Your task to perform on an android device: empty trash in the gmail app Image 0: 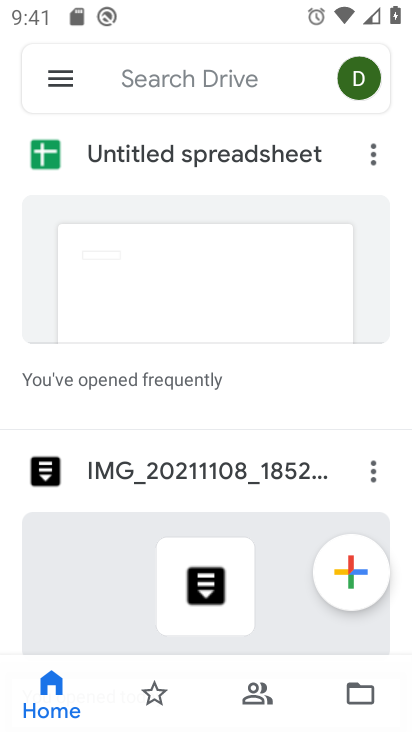
Step 0: press home button
Your task to perform on an android device: empty trash in the gmail app Image 1: 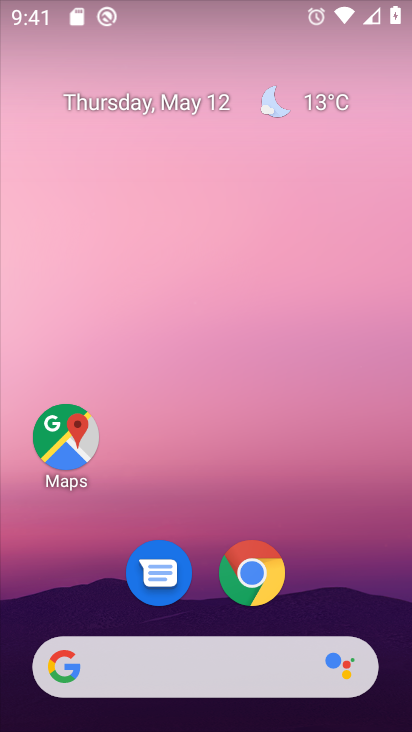
Step 1: drag from (362, 485) to (338, 329)
Your task to perform on an android device: empty trash in the gmail app Image 2: 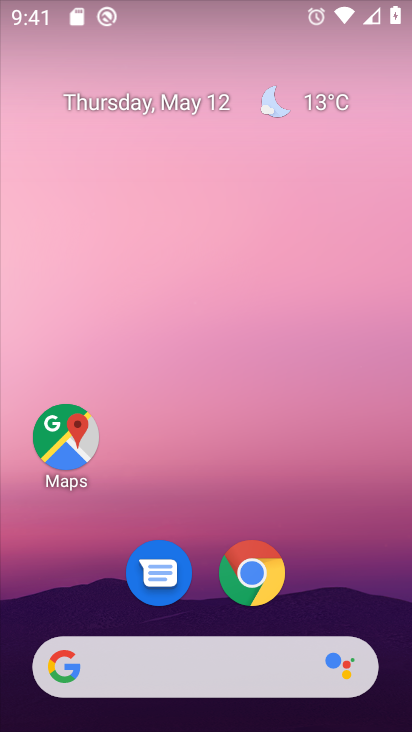
Step 2: drag from (408, 533) to (401, 222)
Your task to perform on an android device: empty trash in the gmail app Image 3: 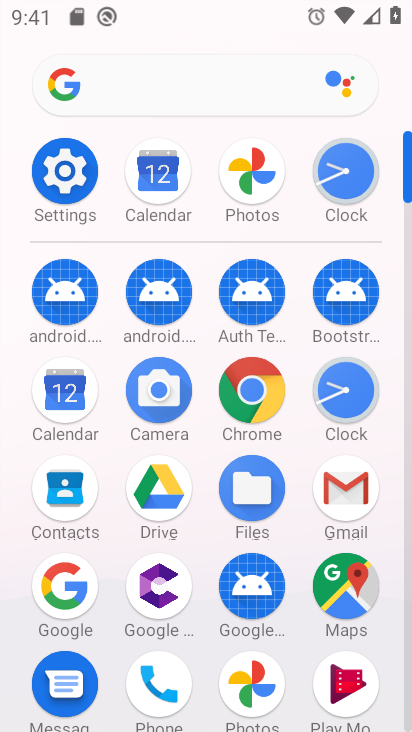
Step 3: click (365, 498)
Your task to perform on an android device: empty trash in the gmail app Image 4: 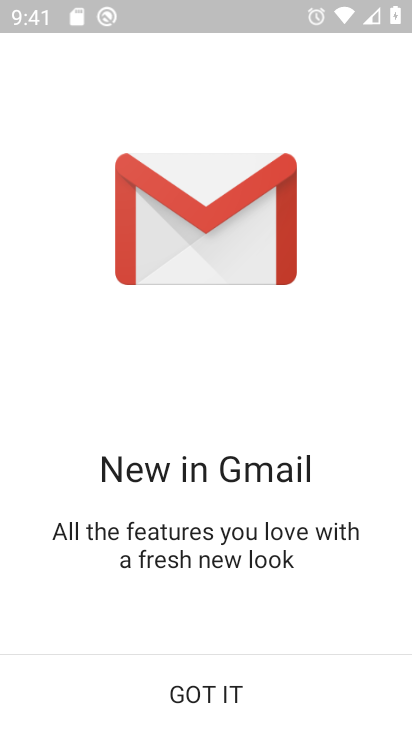
Step 4: click (179, 688)
Your task to perform on an android device: empty trash in the gmail app Image 5: 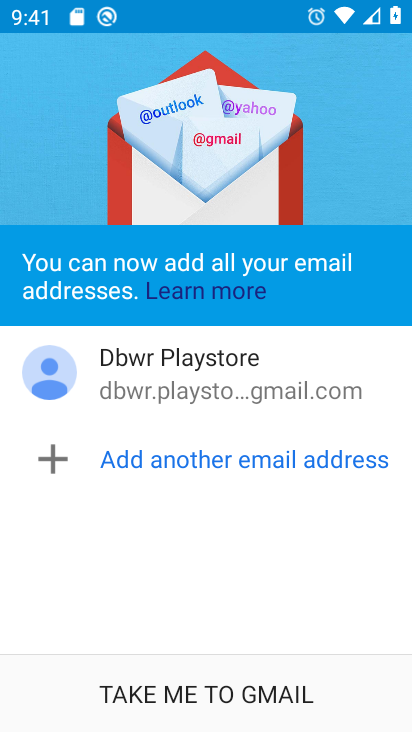
Step 5: click (219, 695)
Your task to perform on an android device: empty trash in the gmail app Image 6: 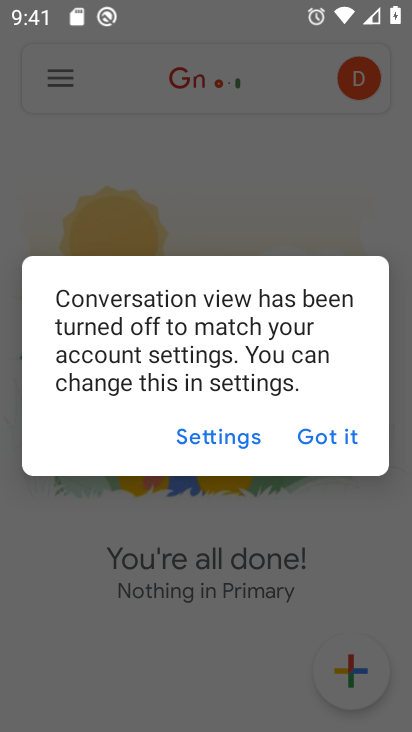
Step 6: click (338, 439)
Your task to perform on an android device: empty trash in the gmail app Image 7: 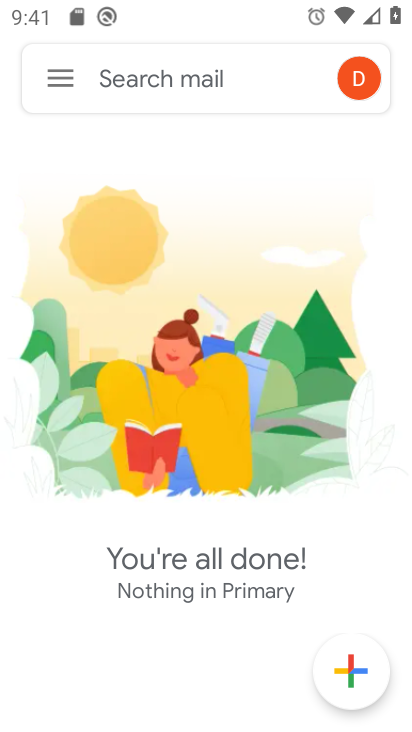
Step 7: click (61, 77)
Your task to perform on an android device: empty trash in the gmail app Image 8: 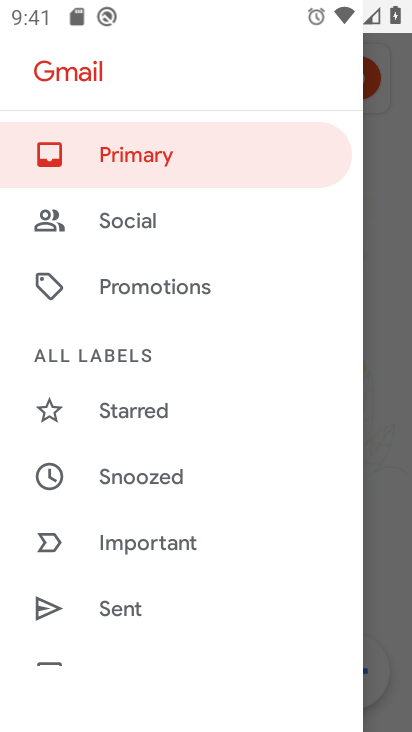
Step 8: drag from (216, 604) to (218, 323)
Your task to perform on an android device: empty trash in the gmail app Image 9: 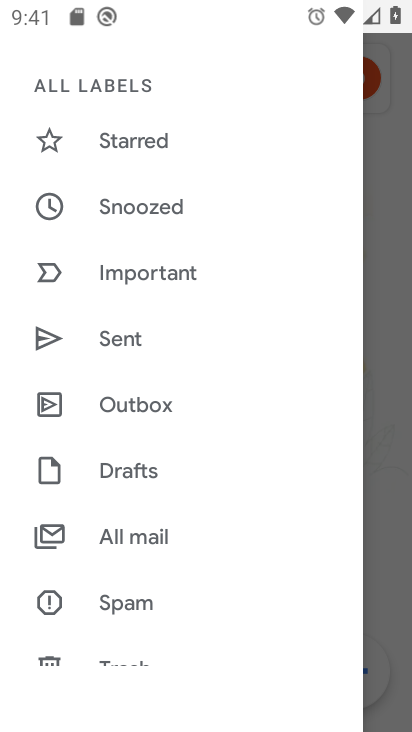
Step 9: drag from (167, 626) to (155, 404)
Your task to perform on an android device: empty trash in the gmail app Image 10: 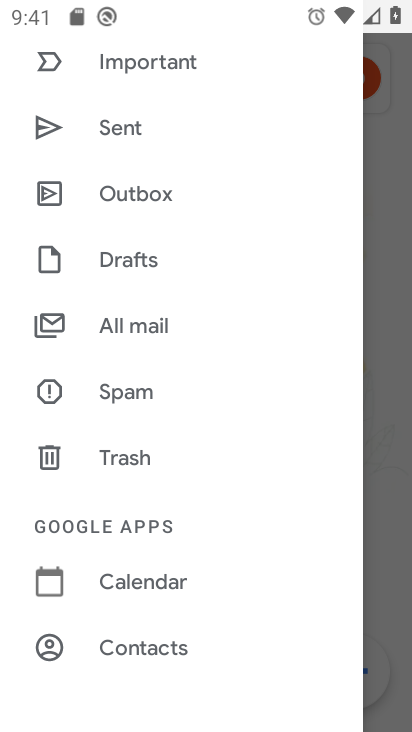
Step 10: click (63, 458)
Your task to perform on an android device: empty trash in the gmail app Image 11: 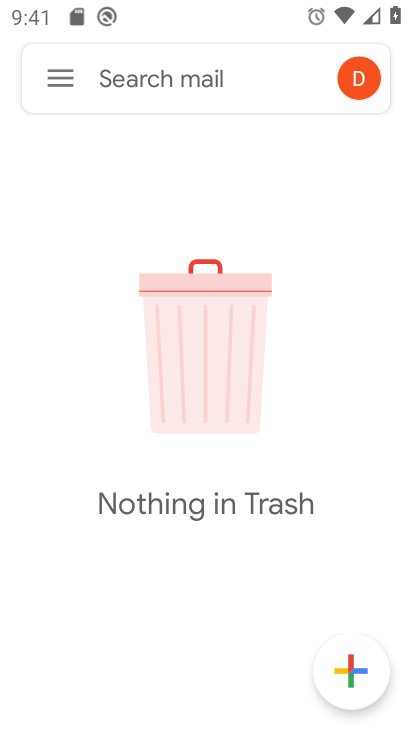
Step 11: task complete